Your task to perform on an android device: install app "Google Home" Image 0: 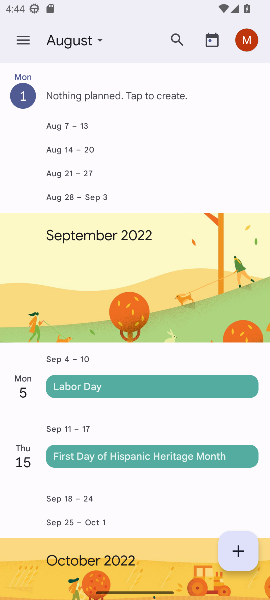
Step 0: press home button
Your task to perform on an android device: install app "Google Home" Image 1: 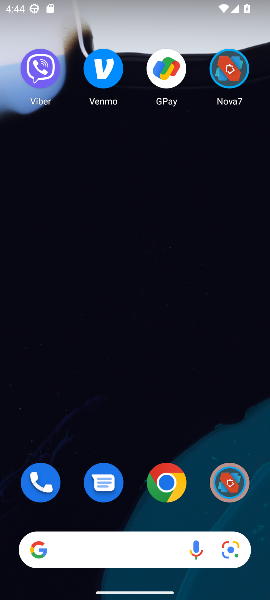
Step 1: press home button
Your task to perform on an android device: install app "Google Home" Image 2: 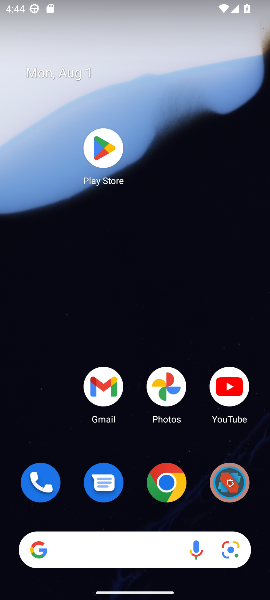
Step 2: click (102, 149)
Your task to perform on an android device: install app "Google Home" Image 3: 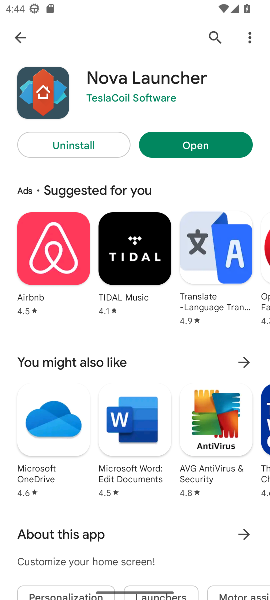
Step 3: click (213, 30)
Your task to perform on an android device: install app "Google Home" Image 4: 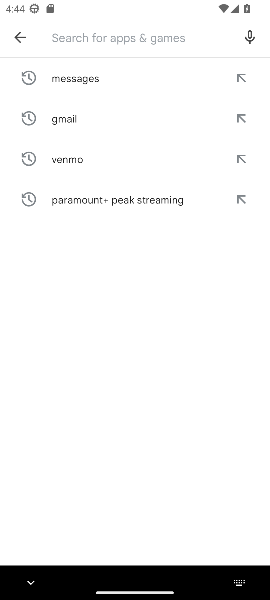
Step 4: type "Google Home"
Your task to perform on an android device: install app "Google Home" Image 5: 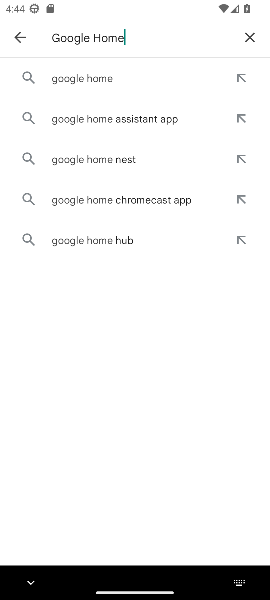
Step 5: click (97, 76)
Your task to perform on an android device: install app "Google Home" Image 6: 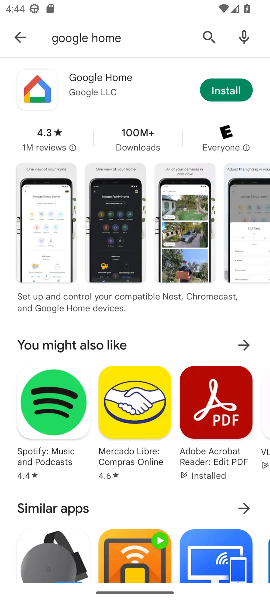
Step 6: click (236, 83)
Your task to perform on an android device: install app "Google Home" Image 7: 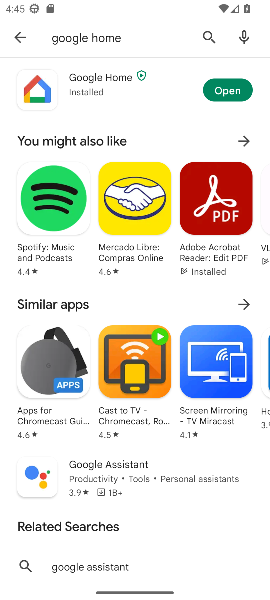
Step 7: task complete